Your task to perform on an android device: Open the stopwatch Image 0: 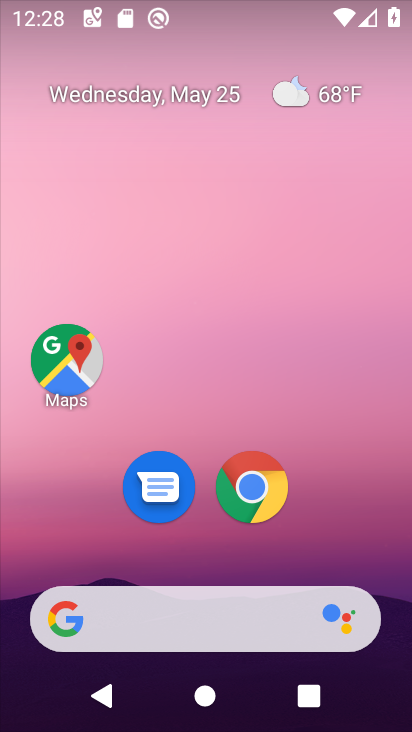
Step 0: drag from (227, 525) to (247, 123)
Your task to perform on an android device: Open the stopwatch Image 1: 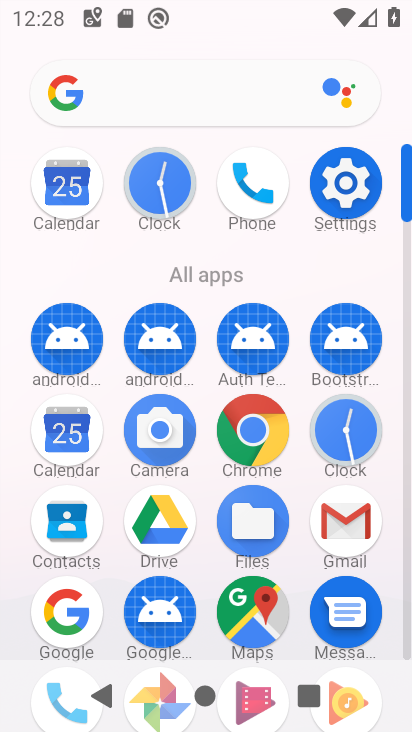
Step 1: click (359, 412)
Your task to perform on an android device: Open the stopwatch Image 2: 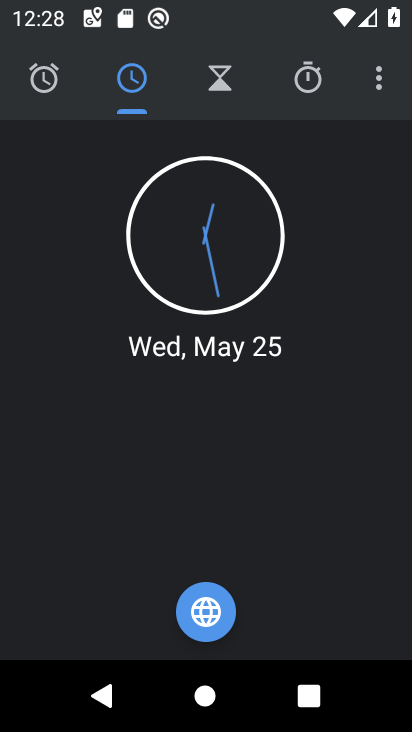
Step 2: click (299, 79)
Your task to perform on an android device: Open the stopwatch Image 3: 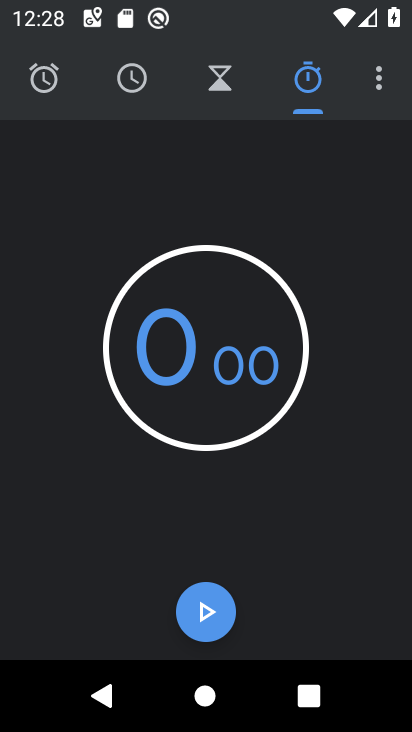
Step 3: task complete